Your task to perform on an android device: delete the emails in spam in the gmail app Image 0: 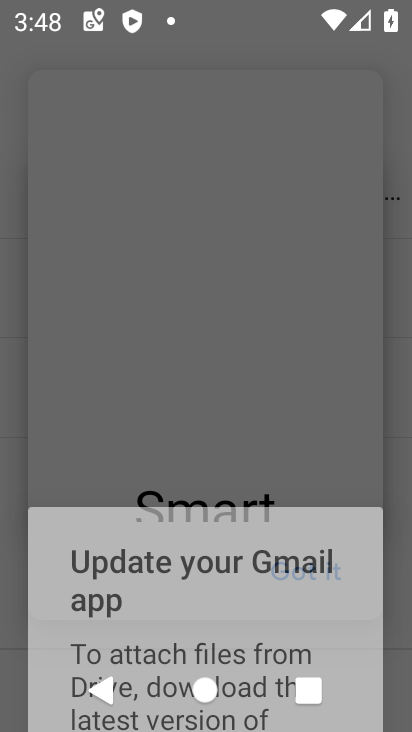
Step 0: press home button
Your task to perform on an android device: delete the emails in spam in the gmail app Image 1: 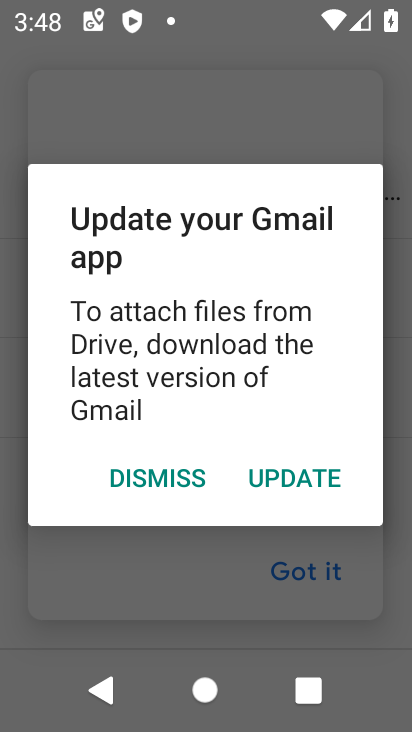
Step 1: press home button
Your task to perform on an android device: delete the emails in spam in the gmail app Image 2: 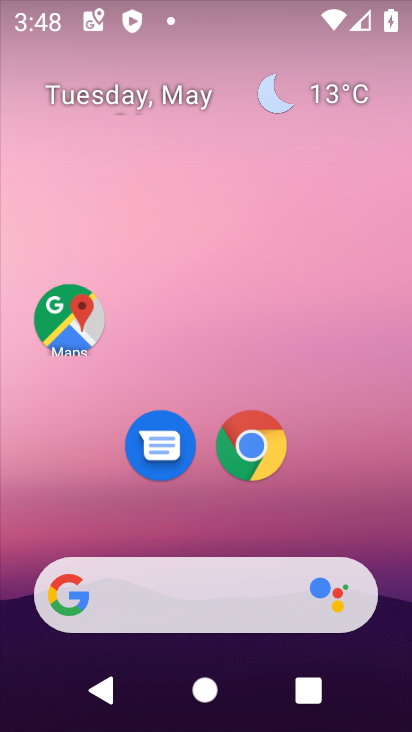
Step 2: drag from (206, 529) to (205, 45)
Your task to perform on an android device: delete the emails in spam in the gmail app Image 3: 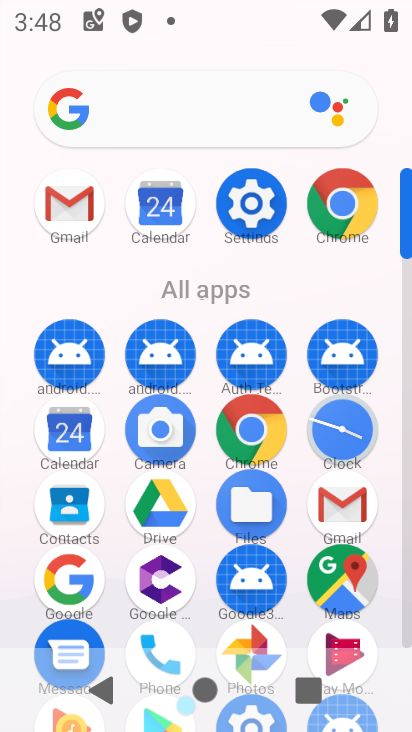
Step 3: click (64, 191)
Your task to perform on an android device: delete the emails in spam in the gmail app Image 4: 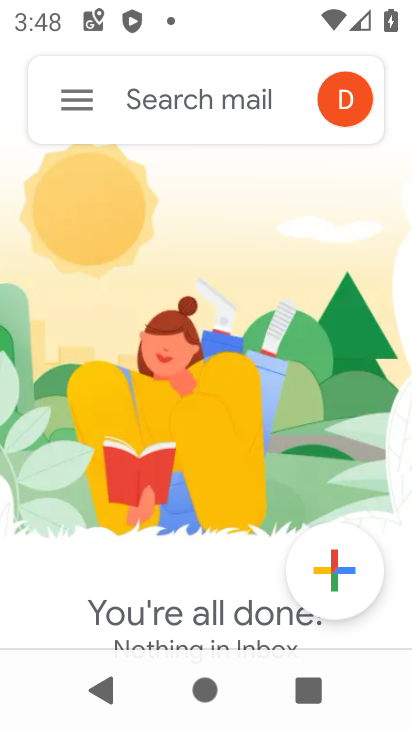
Step 4: click (73, 91)
Your task to perform on an android device: delete the emails in spam in the gmail app Image 5: 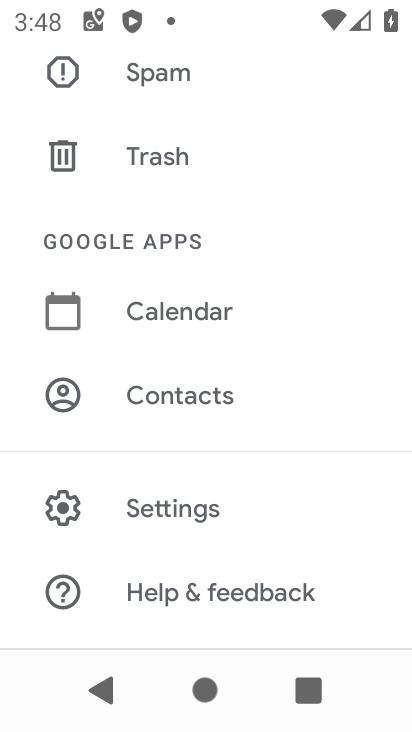
Step 5: drag from (109, 113) to (101, 530)
Your task to perform on an android device: delete the emails in spam in the gmail app Image 6: 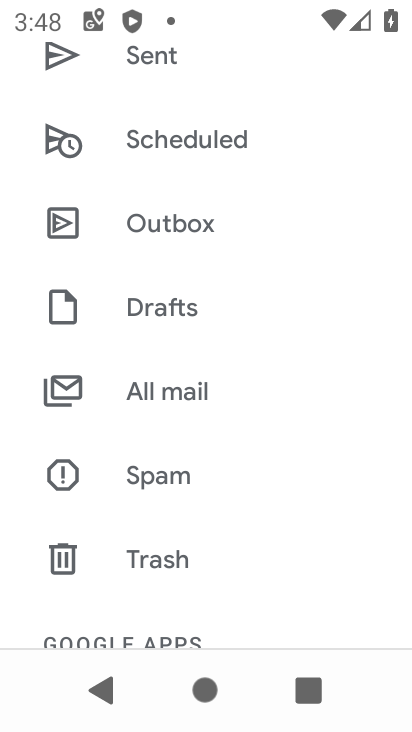
Step 6: click (105, 382)
Your task to perform on an android device: delete the emails in spam in the gmail app Image 7: 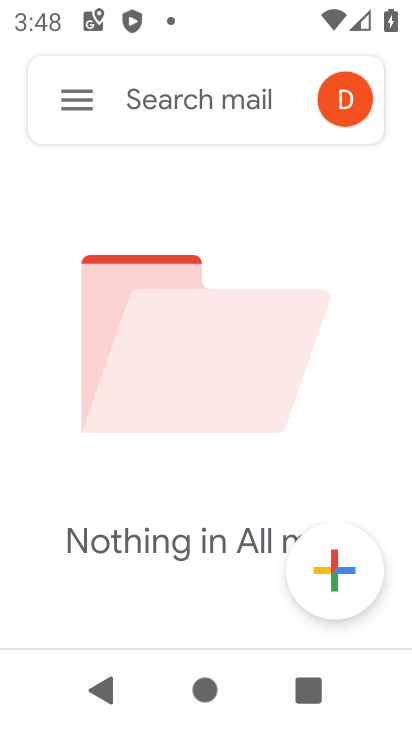
Step 7: click (74, 92)
Your task to perform on an android device: delete the emails in spam in the gmail app Image 8: 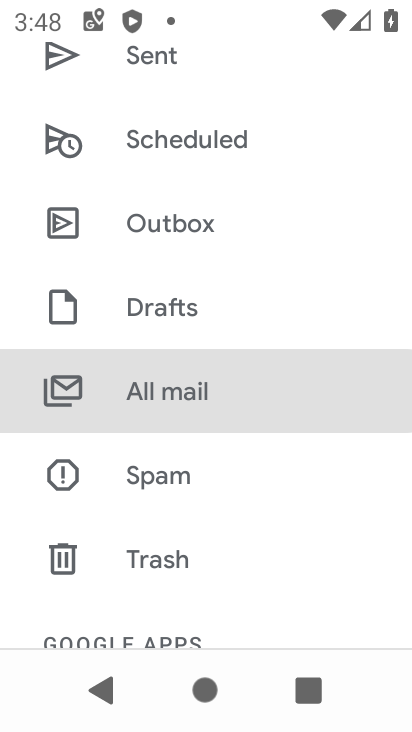
Step 8: click (103, 472)
Your task to perform on an android device: delete the emails in spam in the gmail app Image 9: 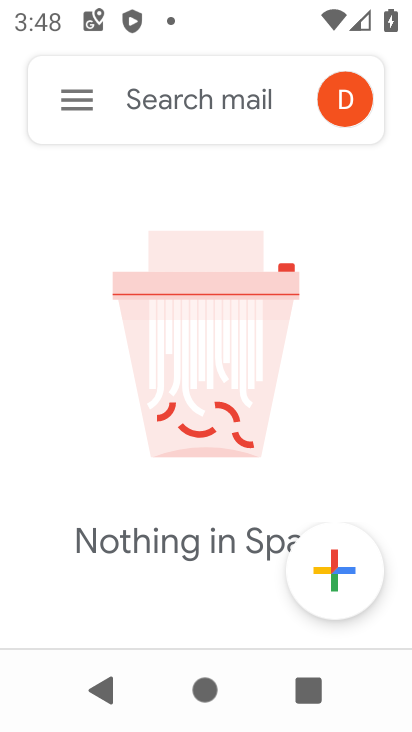
Step 9: task complete